Your task to perform on an android device: Open the calendar app, open the side menu, and click the "Day" option Image 0: 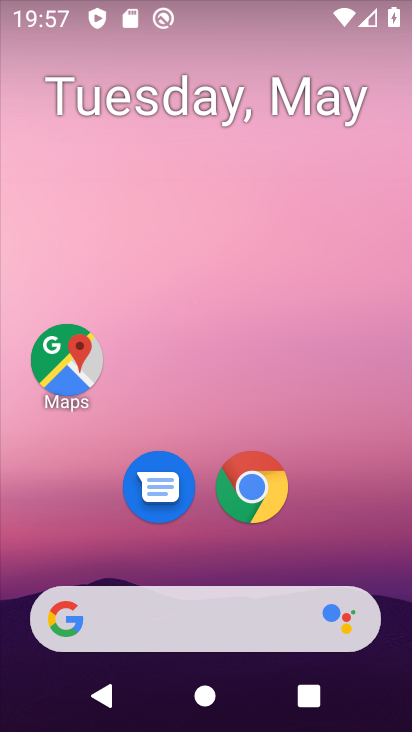
Step 0: drag from (343, 538) to (313, 8)
Your task to perform on an android device: Open the calendar app, open the side menu, and click the "Day" option Image 1: 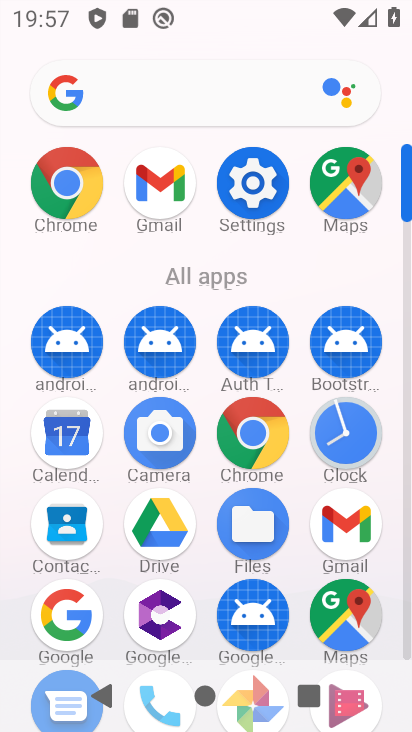
Step 1: click (75, 460)
Your task to perform on an android device: Open the calendar app, open the side menu, and click the "Day" option Image 2: 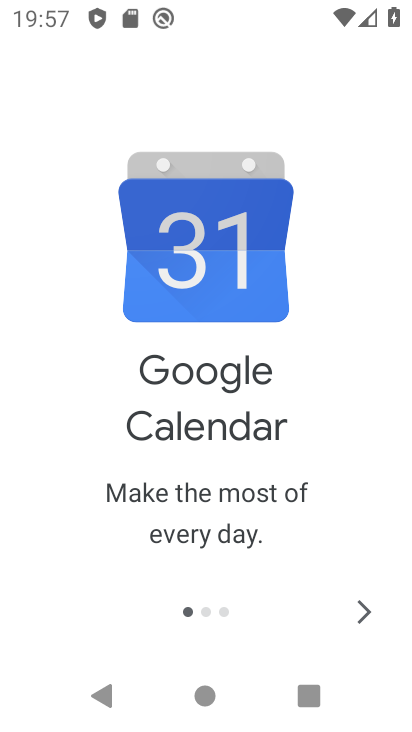
Step 2: click (345, 603)
Your task to perform on an android device: Open the calendar app, open the side menu, and click the "Day" option Image 3: 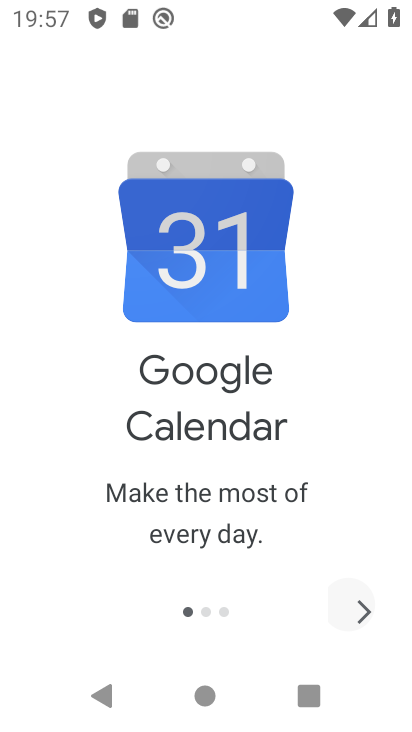
Step 3: click (345, 603)
Your task to perform on an android device: Open the calendar app, open the side menu, and click the "Day" option Image 4: 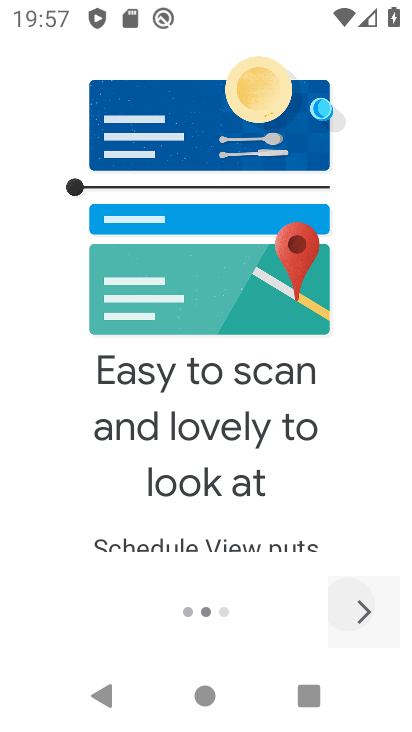
Step 4: click (345, 603)
Your task to perform on an android device: Open the calendar app, open the side menu, and click the "Day" option Image 5: 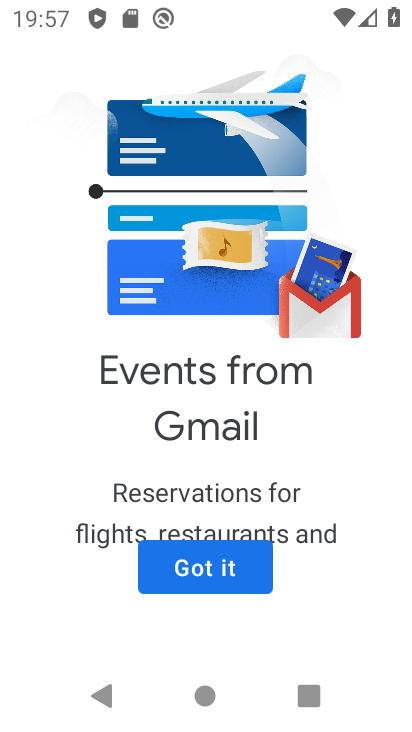
Step 5: click (246, 576)
Your task to perform on an android device: Open the calendar app, open the side menu, and click the "Day" option Image 6: 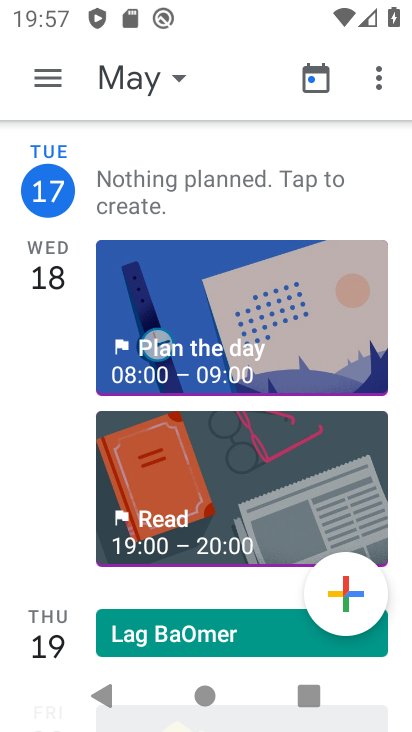
Step 6: click (65, 89)
Your task to perform on an android device: Open the calendar app, open the side menu, and click the "Day" option Image 7: 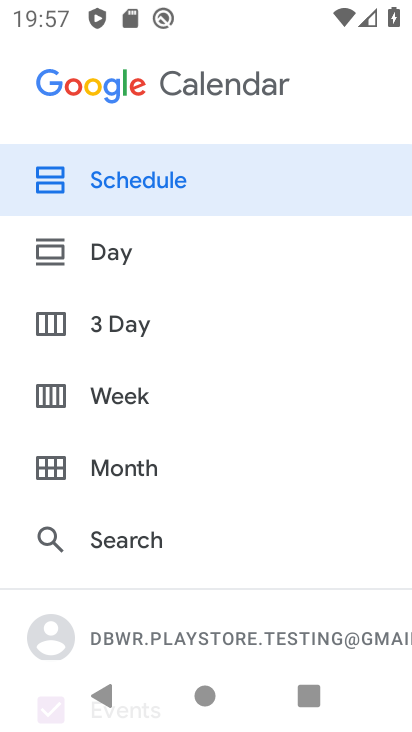
Step 7: click (90, 266)
Your task to perform on an android device: Open the calendar app, open the side menu, and click the "Day" option Image 8: 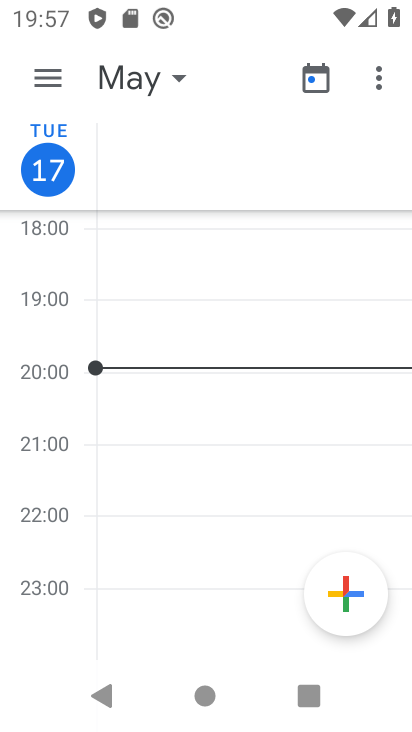
Step 8: task complete